Your task to perform on an android device: What is the price of a 12' ladder at Home Depot? Image 0: 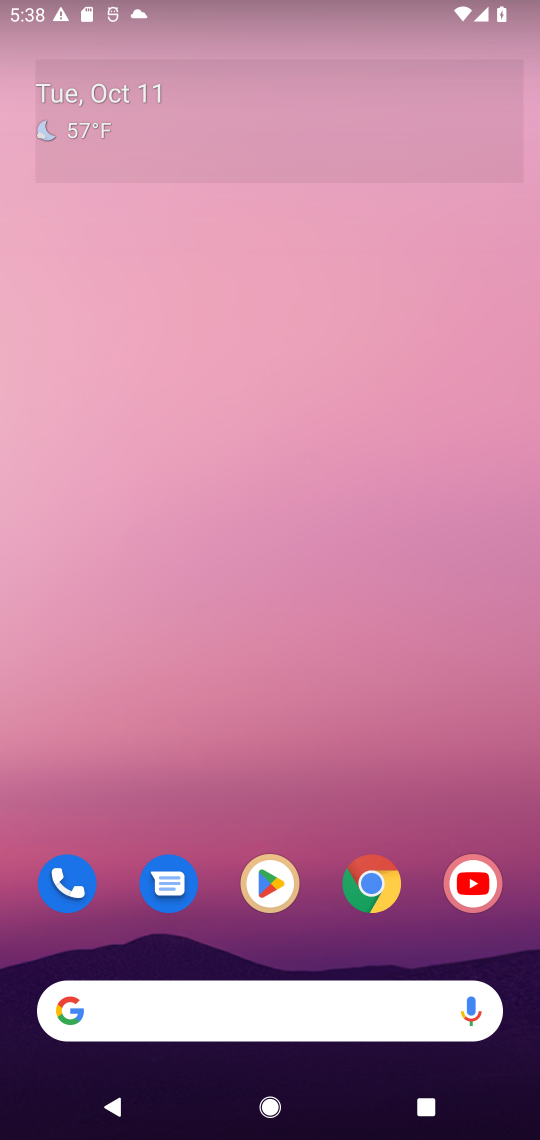
Step 0: drag from (313, 954) to (308, 242)
Your task to perform on an android device: What is the price of a 12' ladder at Home Depot? Image 1: 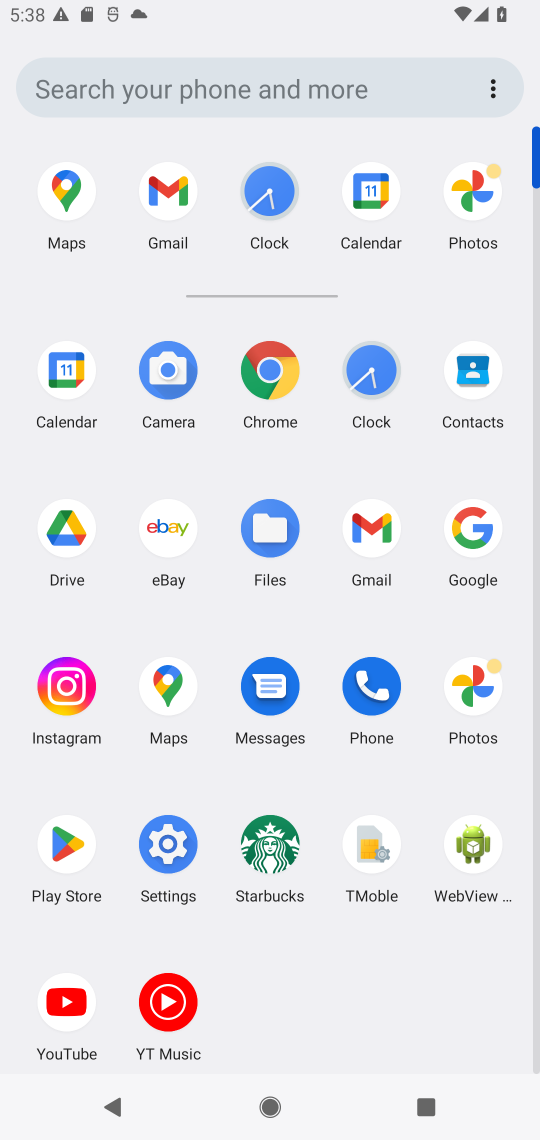
Step 1: click (279, 376)
Your task to perform on an android device: What is the price of a 12' ladder at Home Depot? Image 2: 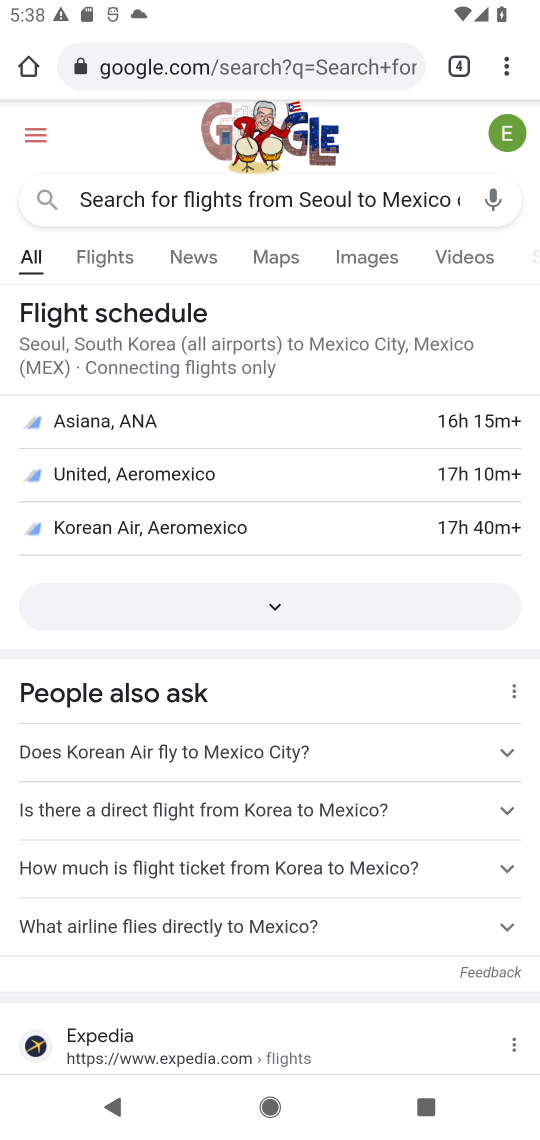
Step 2: click (294, 68)
Your task to perform on an android device: What is the price of a 12' ladder at Home Depot? Image 3: 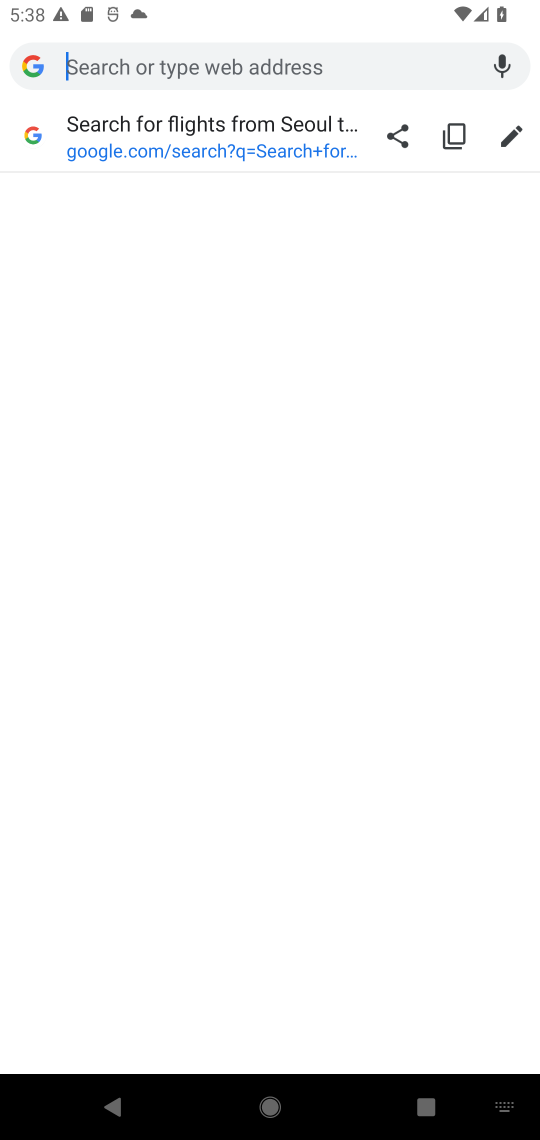
Step 3: type "What is the price of a 12' ladder at Home Depot?"
Your task to perform on an android device: What is the price of a 12' ladder at Home Depot? Image 4: 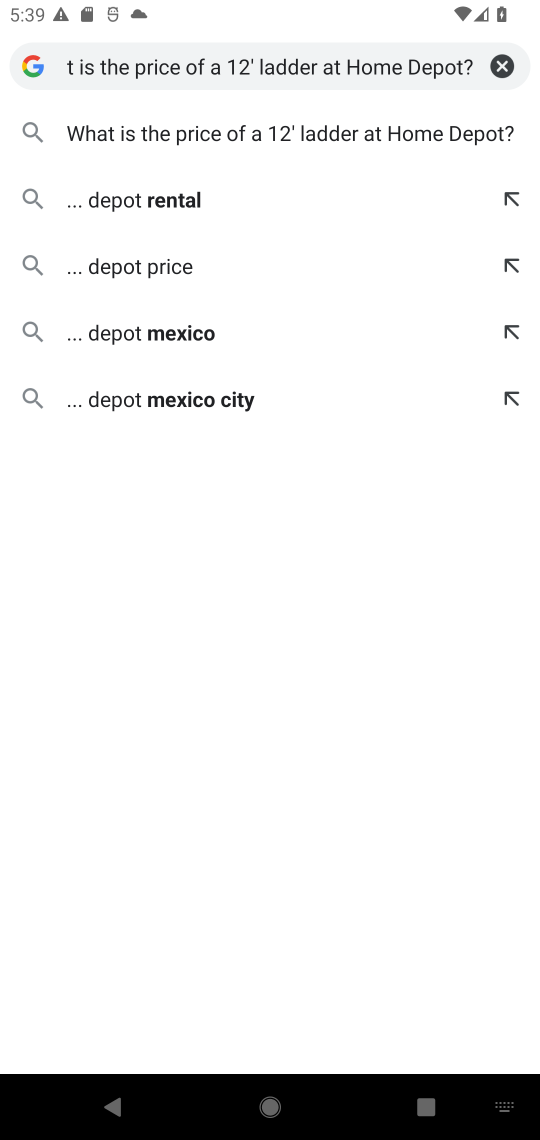
Step 4: press enter
Your task to perform on an android device: What is the price of a 12' ladder at Home Depot? Image 5: 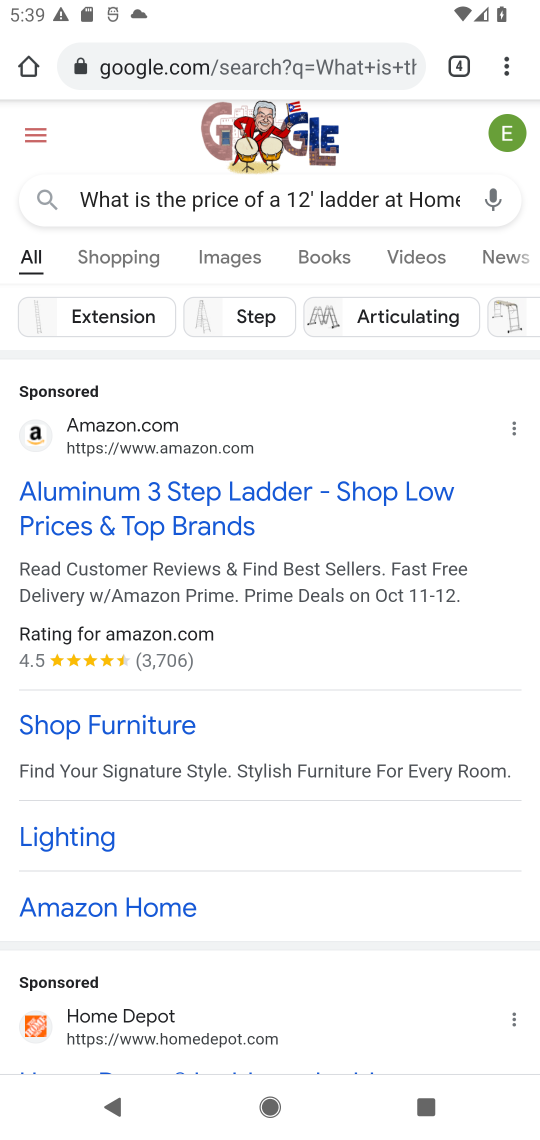
Step 5: task complete